Your task to perform on an android device: Open Google Maps and go to "Timeline" Image 0: 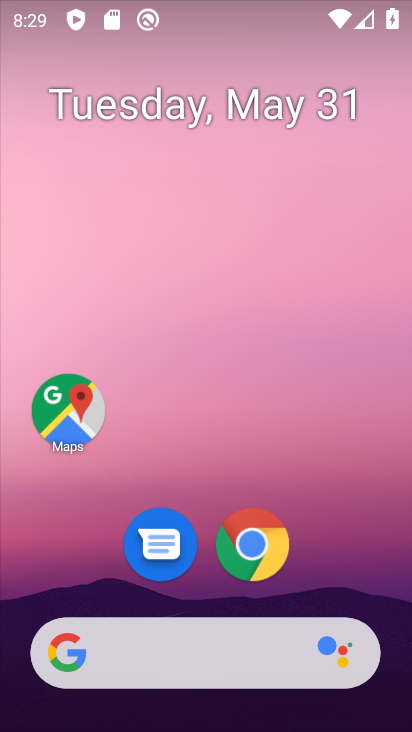
Step 0: click (54, 403)
Your task to perform on an android device: Open Google Maps and go to "Timeline" Image 1: 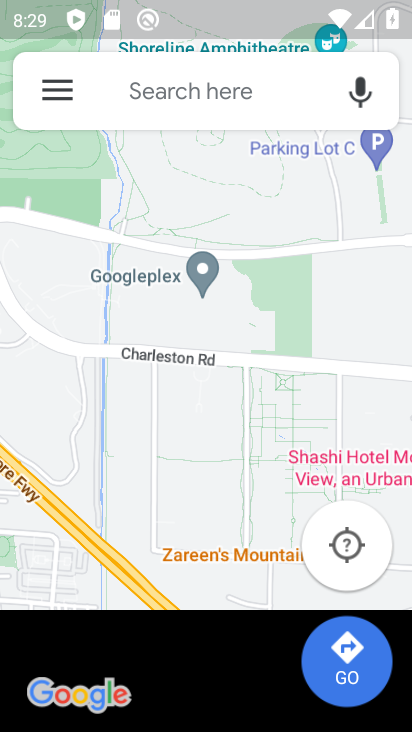
Step 1: click (51, 88)
Your task to perform on an android device: Open Google Maps and go to "Timeline" Image 2: 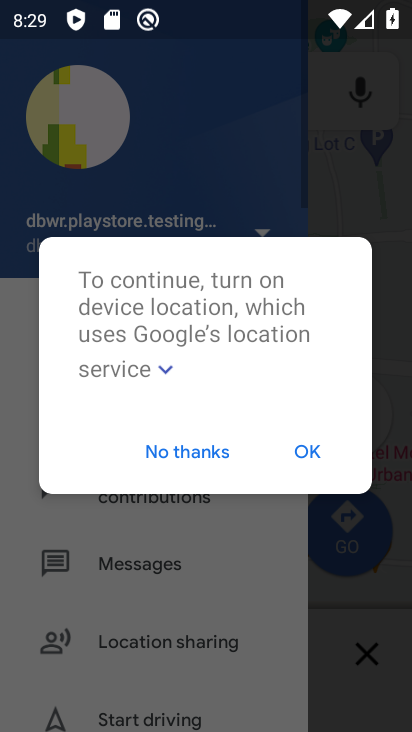
Step 2: click (208, 451)
Your task to perform on an android device: Open Google Maps and go to "Timeline" Image 3: 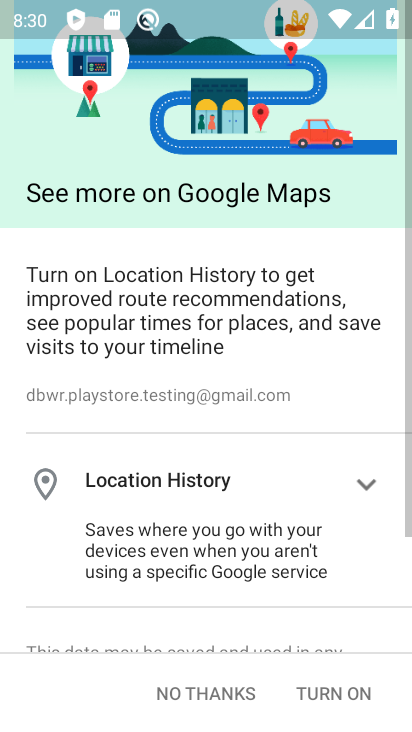
Step 3: click (226, 687)
Your task to perform on an android device: Open Google Maps and go to "Timeline" Image 4: 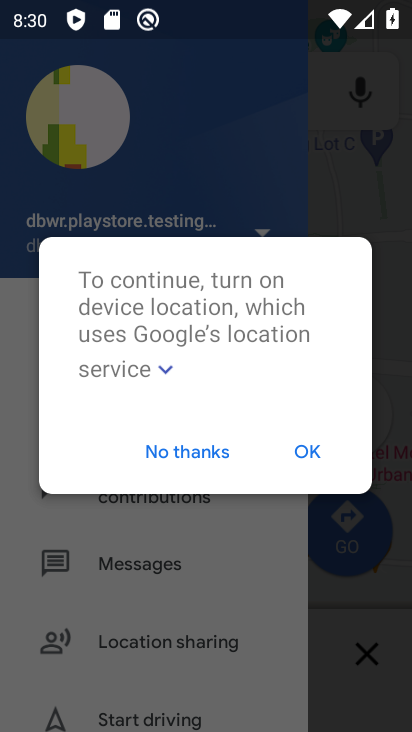
Step 4: click (320, 455)
Your task to perform on an android device: Open Google Maps and go to "Timeline" Image 5: 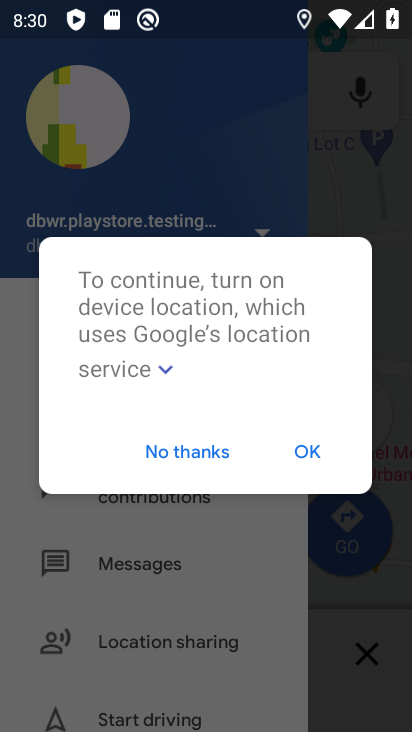
Step 5: click (297, 444)
Your task to perform on an android device: Open Google Maps and go to "Timeline" Image 6: 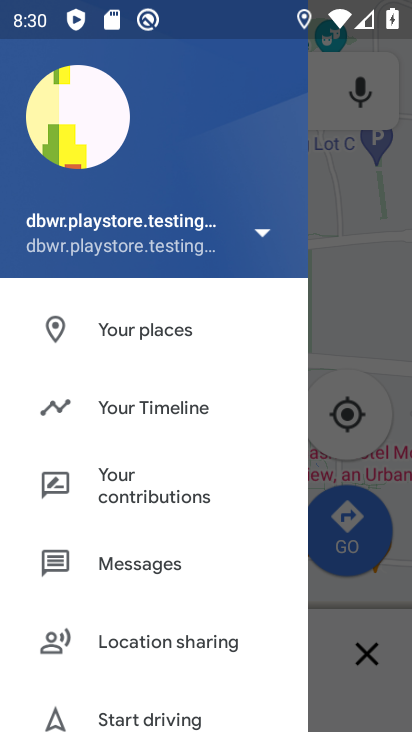
Step 6: click (117, 405)
Your task to perform on an android device: Open Google Maps and go to "Timeline" Image 7: 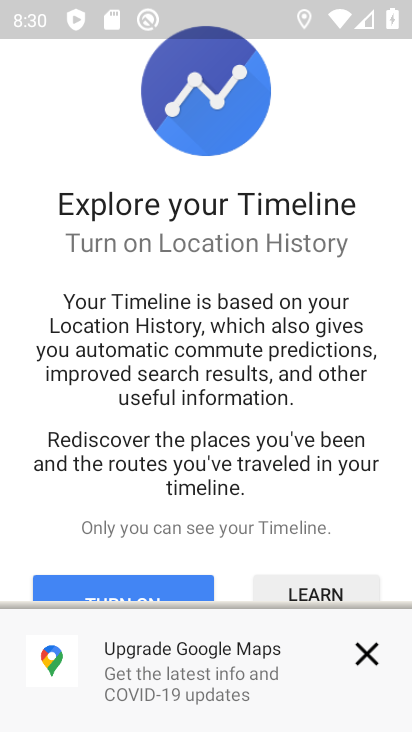
Step 7: drag from (302, 495) to (410, 11)
Your task to perform on an android device: Open Google Maps and go to "Timeline" Image 8: 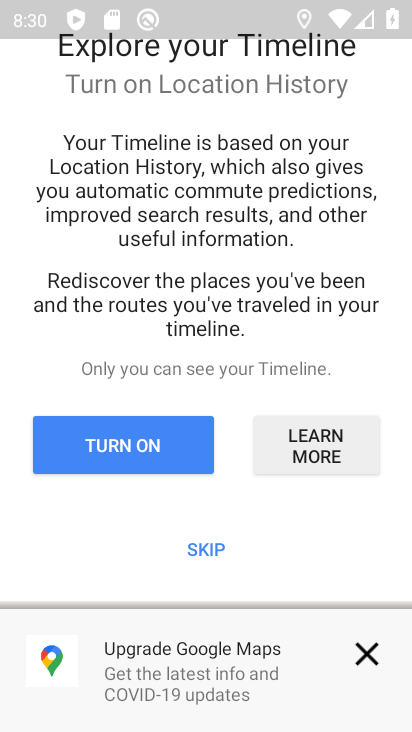
Step 8: click (194, 542)
Your task to perform on an android device: Open Google Maps and go to "Timeline" Image 9: 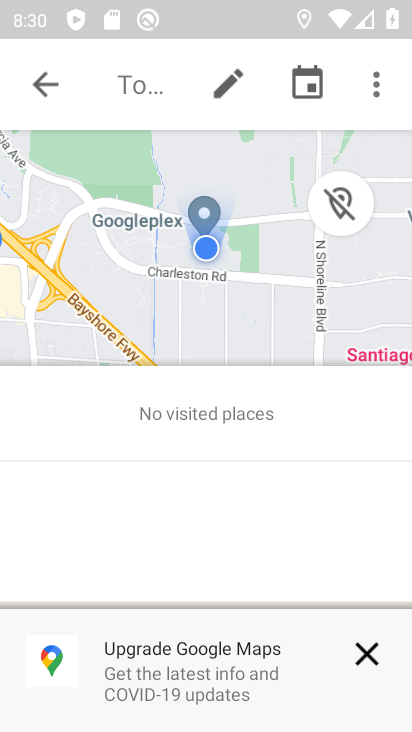
Step 9: task complete